Your task to perform on an android device: Go to Google maps Image 0: 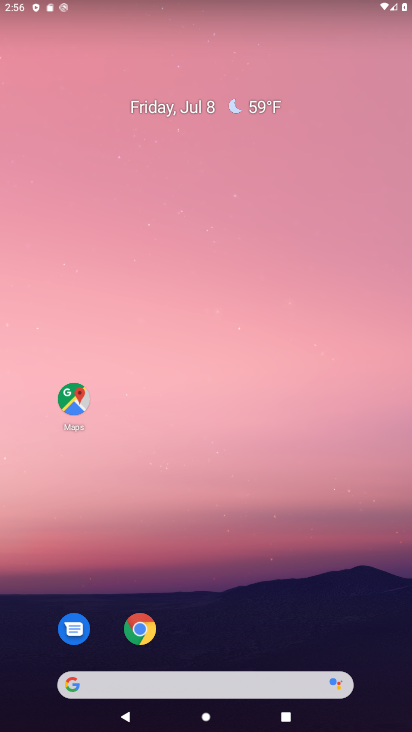
Step 0: click (71, 393)
Your task to perform on an android device: Go to Google maps Image 1: 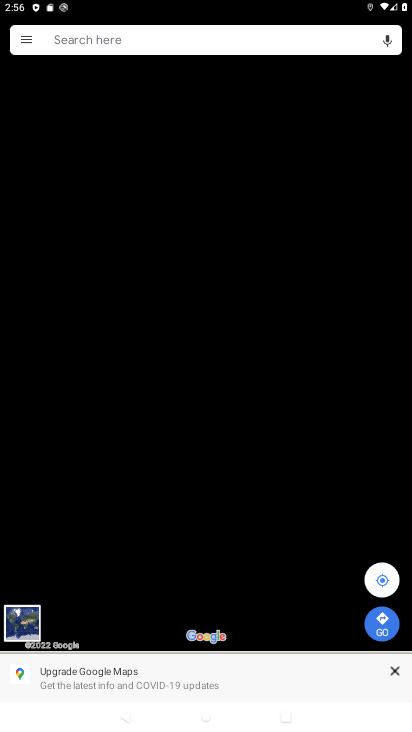
Step 1: click (394, 669)
Your task to perform on an android device: Go to Google maps Image 2: 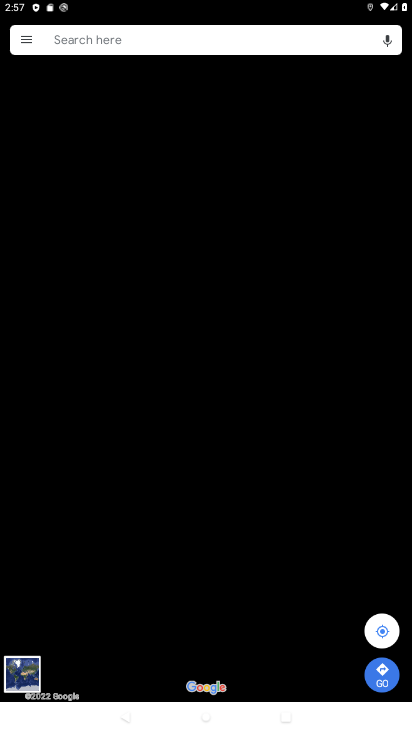
Step 2: task complete